Your task to perform on an android device: Show me productivity apps on the Play Store Image 0: 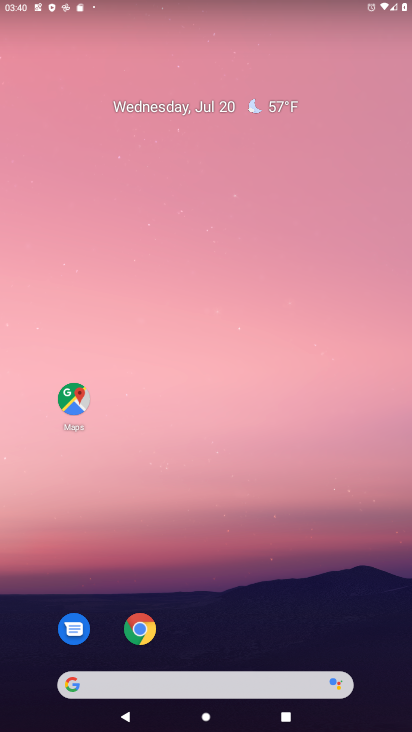
Step 0: drag from (379, 660) to (308, 54)
Your task to perform on an android device: Show me productivity apps on the Play Store Image 1: 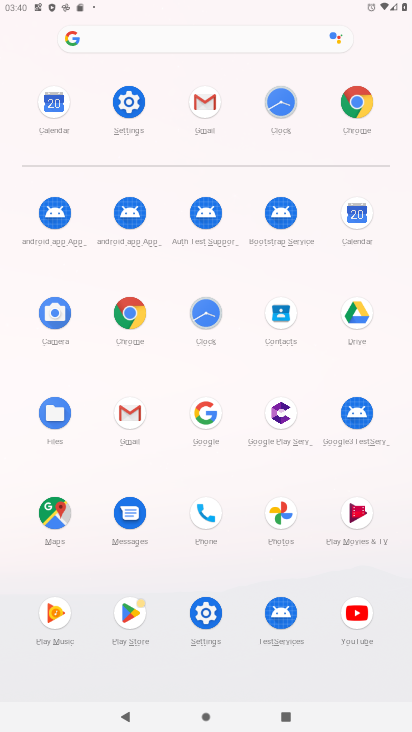
Step 1: click (131, 611)
Your task to perform on an android device: Show me productivity apps on the Play Store Image 2: 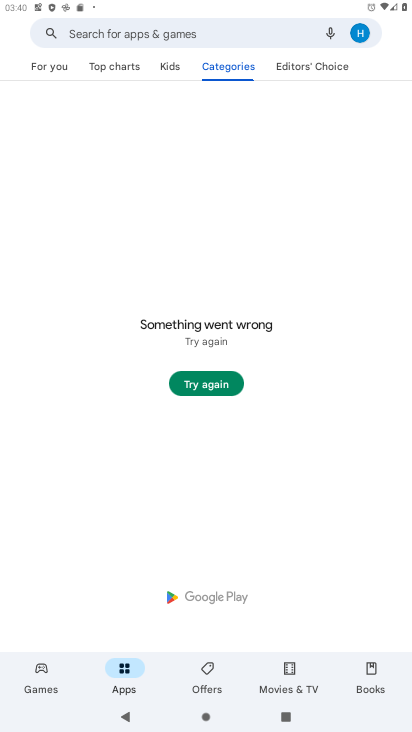
Step 2: click (203, 379)
Your task to perform on an android device: Show me productivity apps on the Play Store Image 3: 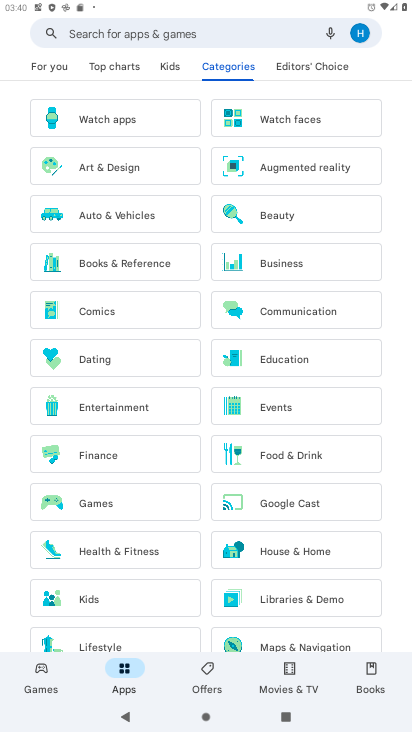
Step 3: drag from (205, 630) to (202, 363)
Your task to perform on an android device: Show me productivity apps on the Play Store Image 4: 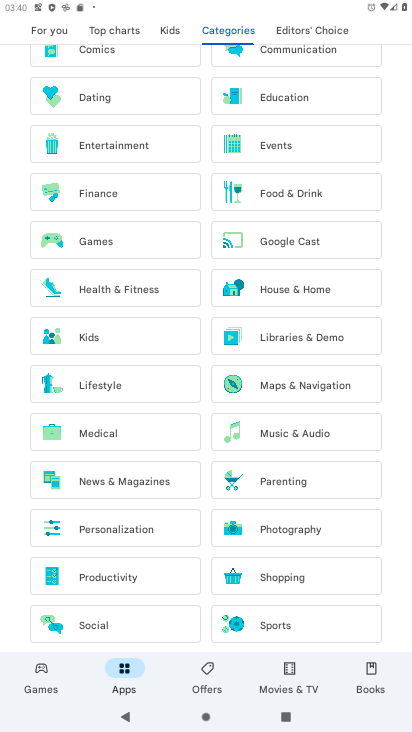
Step 4: click (95, 577)
Your task to perform on an android device: Show me productivity apps on the Play Store Image 5: 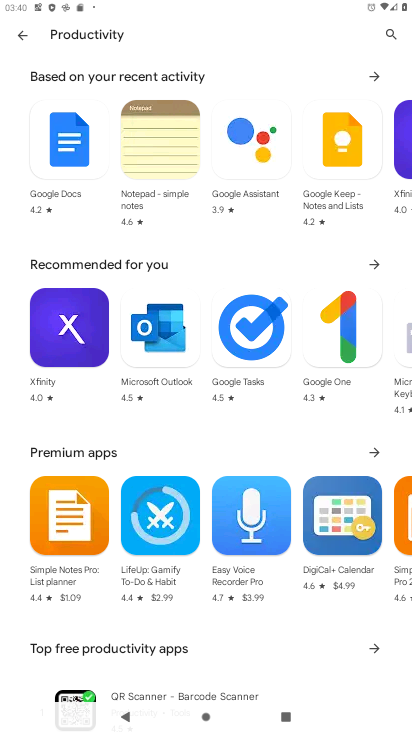
Step 5: drag from (296, 578) to (278, 336)
Your task to perform on an android device: Show me productivity apps on the Play Store Image 6: 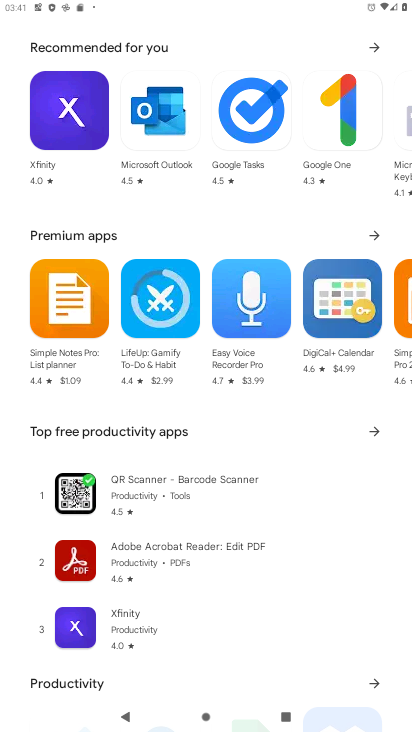
Step 6: drag from (278, 521) to (291, 288)
Your task to perform on an android device: Show me productivity apps on the Play Store Image 7: 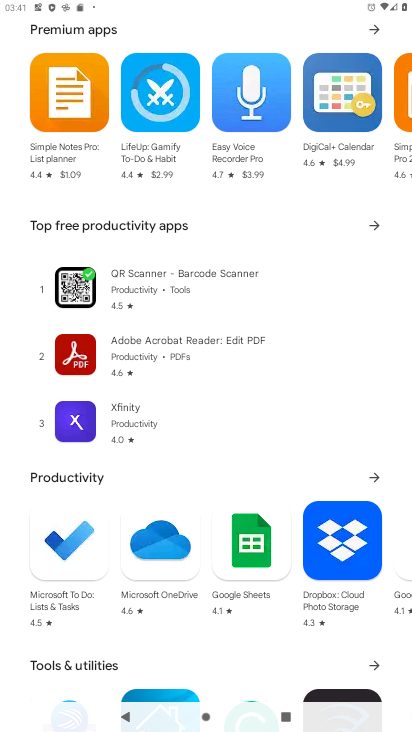
Step 7: click (370, 476)
Your task to perform on an android device: Show me productivity apps on the Play Store Image 8: 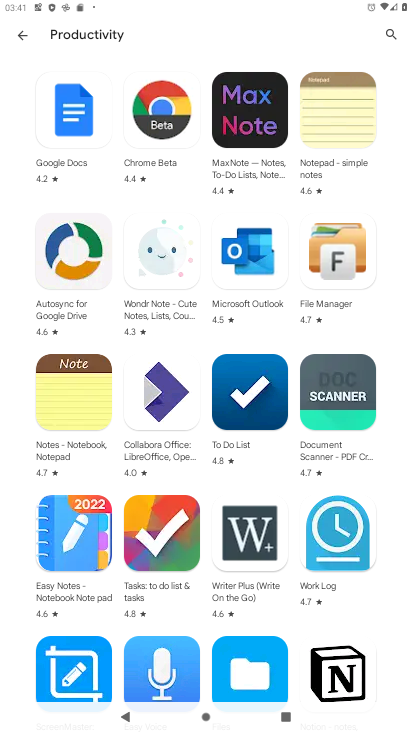
Step 8: task complete